Your task to perform on an android device: change alarm snooze length Image 0: 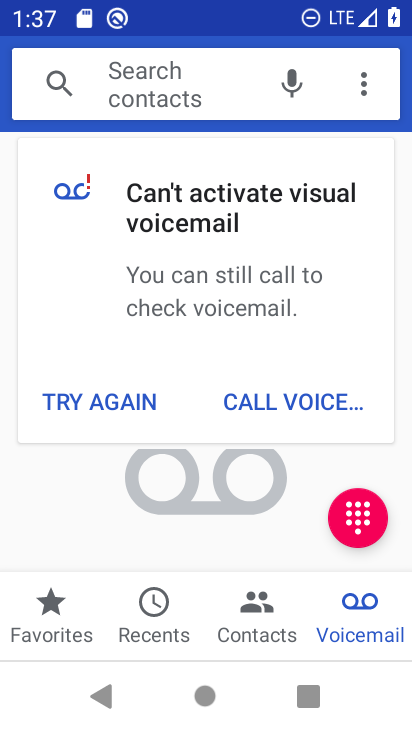
Step 0: press home button
Your task to perform on an android device: change alarm snooze length Image 1: 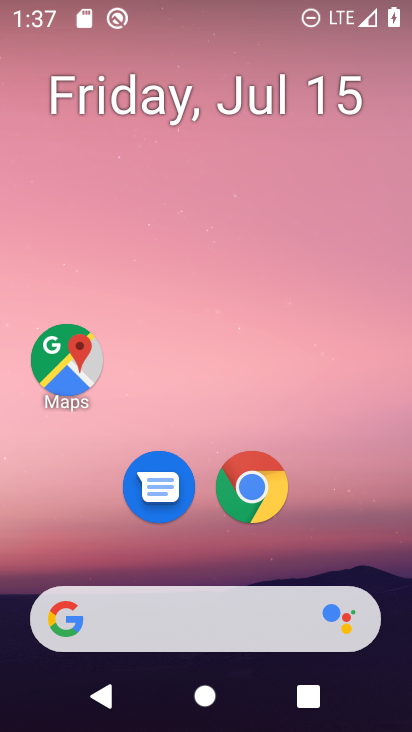
Step 1: drag from (217, 646) to (390, 313)
Your task to perform on an android device: change alarm snooze length Image 2: 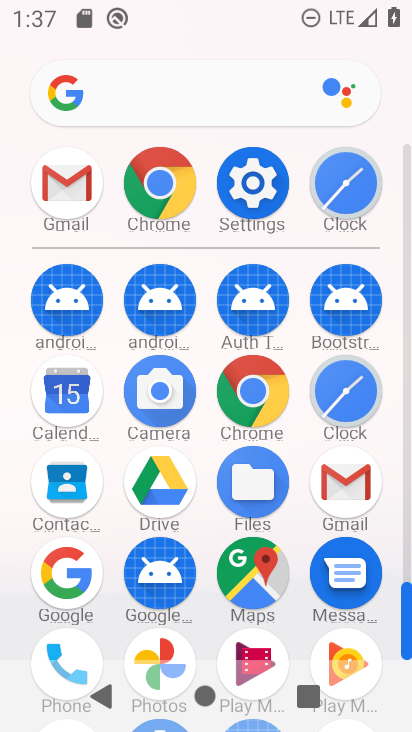
Step 2: click (329, 198)
Your task to perform on an android device: change alarm snooze length Image 3: 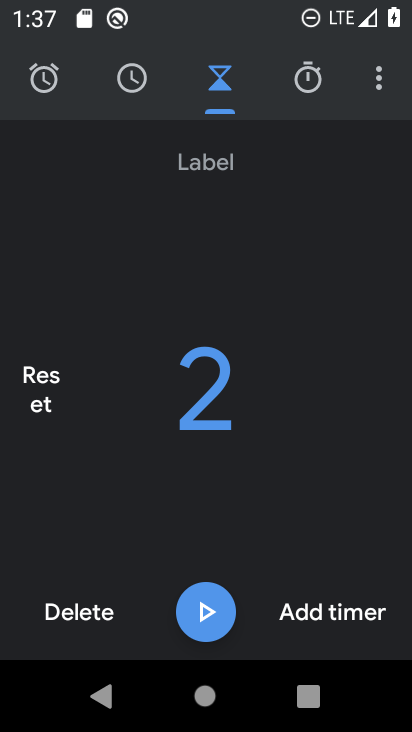
Step 3: click (382, 84)
Your task to perform on an android device: change alarm snooze length Image 4: 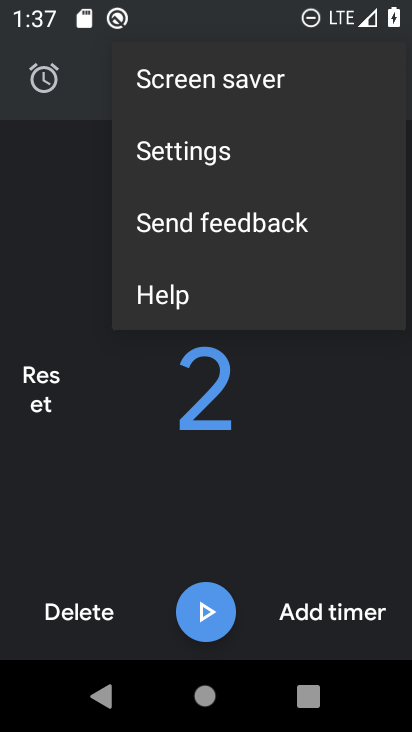
Step 4: click (198, 162)
Your task to perform on an android device: change alarm snooze length Image 5: 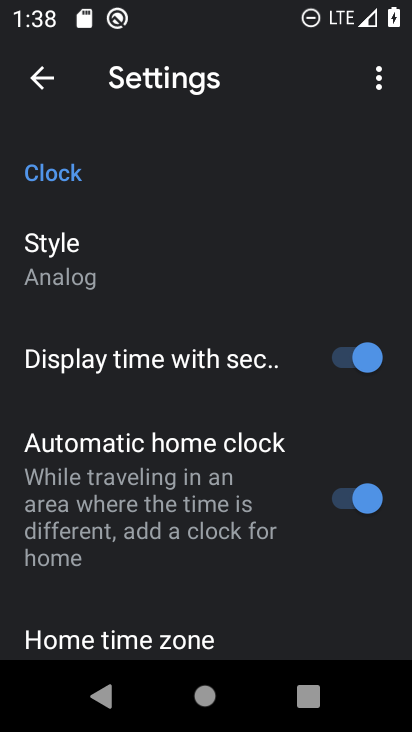
Step 5: drag from (173, 460) to (231, 218)
Your task to perform on an android device: change alarm snooze length Image 6: 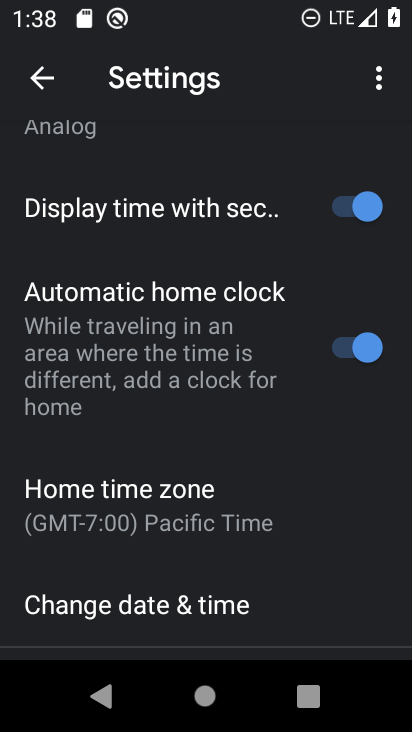
Step 6: drag from (141, 491) to (195, 219)
Your task to perform on an android device: change alarm snooze length Image 7: 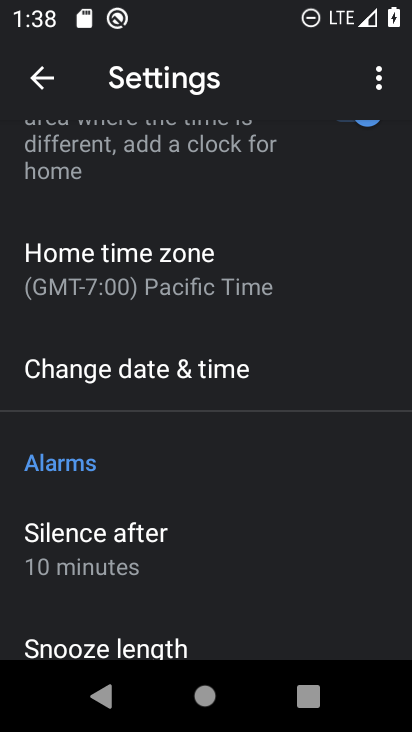
Step 7: click (116, 646)
Your task to perform on an android device: change alarm snooze length Image 8: 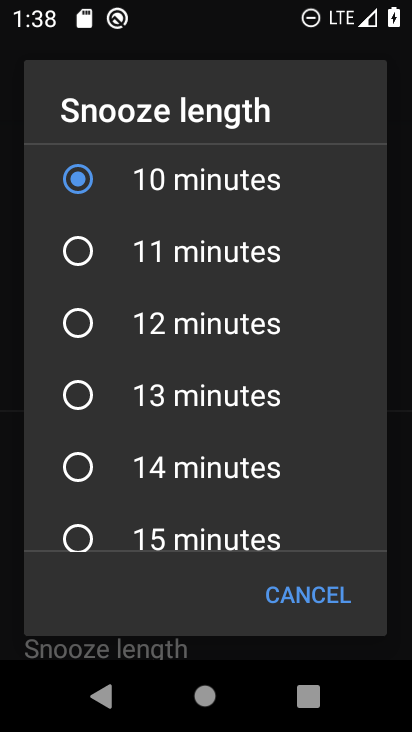
Step 8: click (74, 316)
Your task to perform on an android device: change alarm snooze length Image 9: 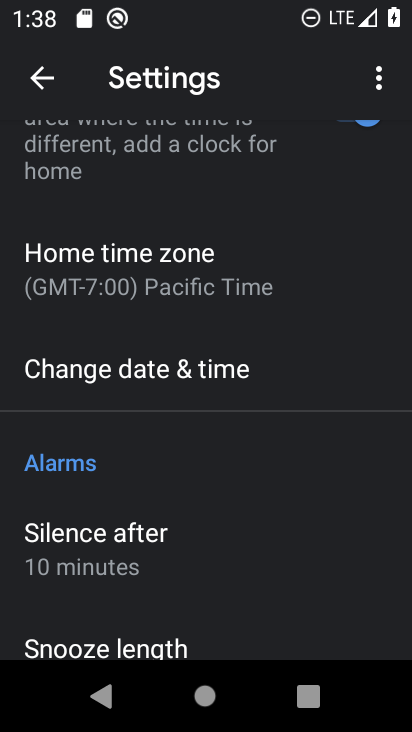
Step 9: task complete